Your task to perform on an android device: turn on translation in the chrome app Image 0: 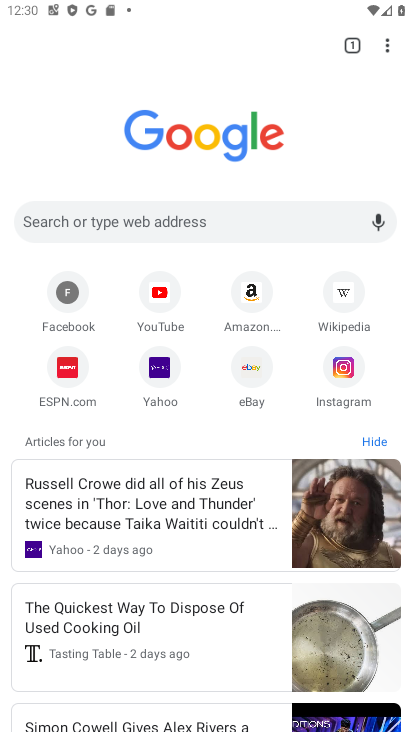
Step 0: drag from (322, 598) to (267, 150)
Your task to perform on an android device: turn on translation in the chrome app Image 1: 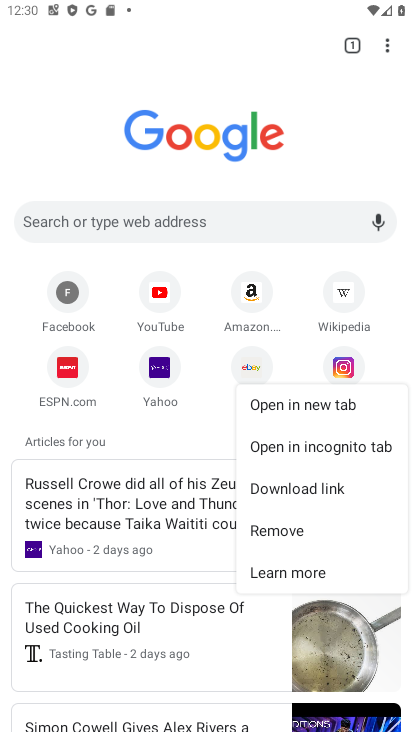
Step 1: click (395, 51)
Your task to perform on an android device: turn on translation in the chrome app Image 2: 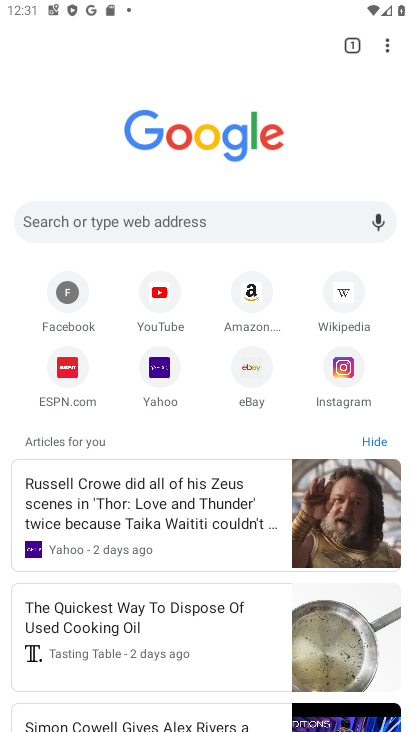
Step 2: click (387, 53)
Your task to perform on an android device: turn on translation in the chrome app Image 3: 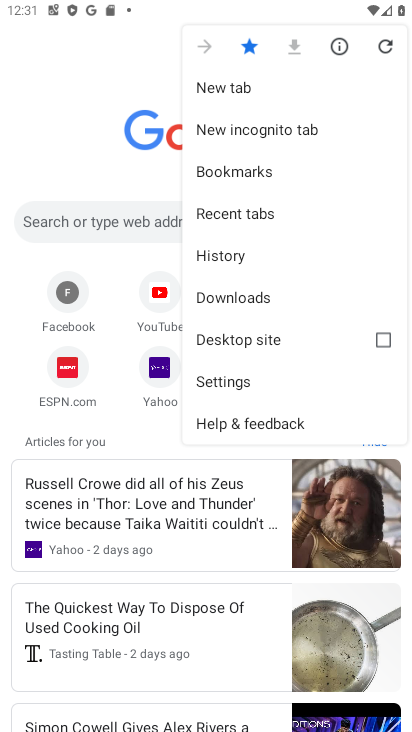
Step 3: click (245, 375)
Your task to perform on an android device: turn on translation in the chrome app Image 4: 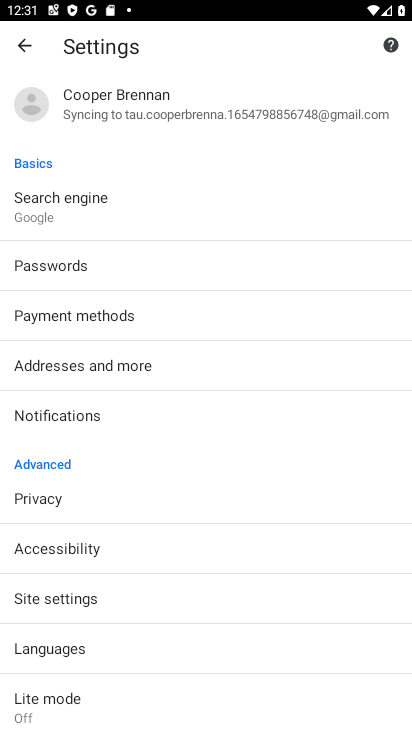
Step 4: click (110, 639)
Your task to perform on an android device: turn on translation in the chrome app Image 5: 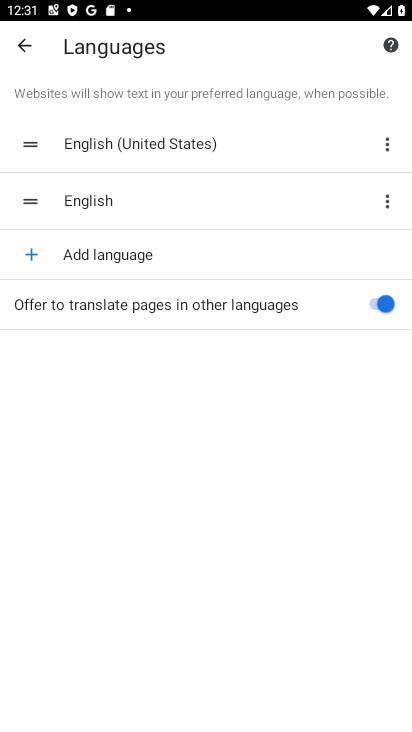
Step 5: task complete